Your task to perform on an android device: open chrome and create a bookmark for the current page Image 0: 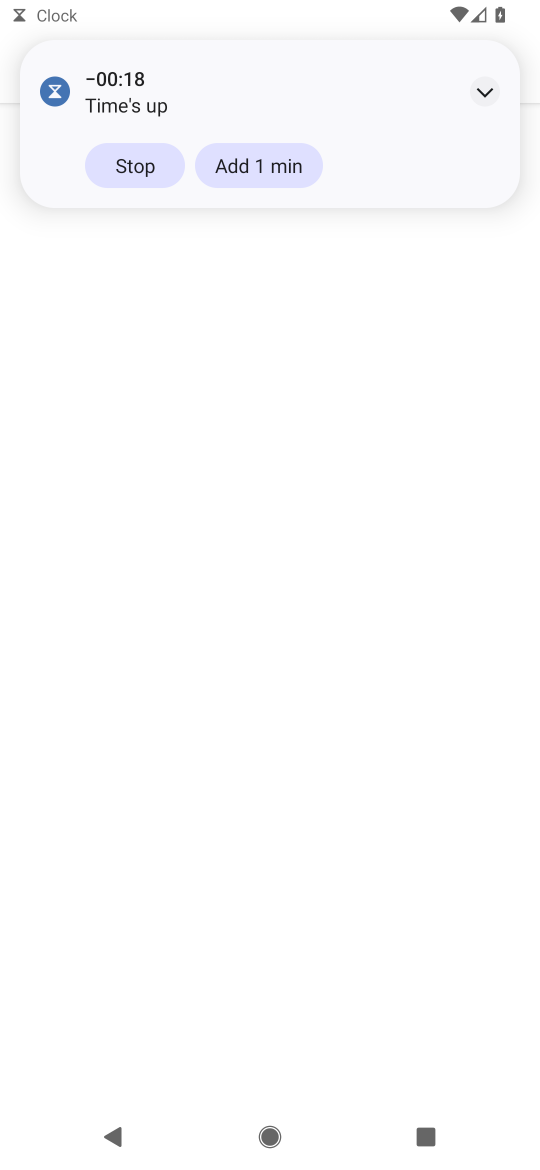
Step 0: press home button
Your task to perform on an android device: open chrome and create a bookmark for the current page Image 1: 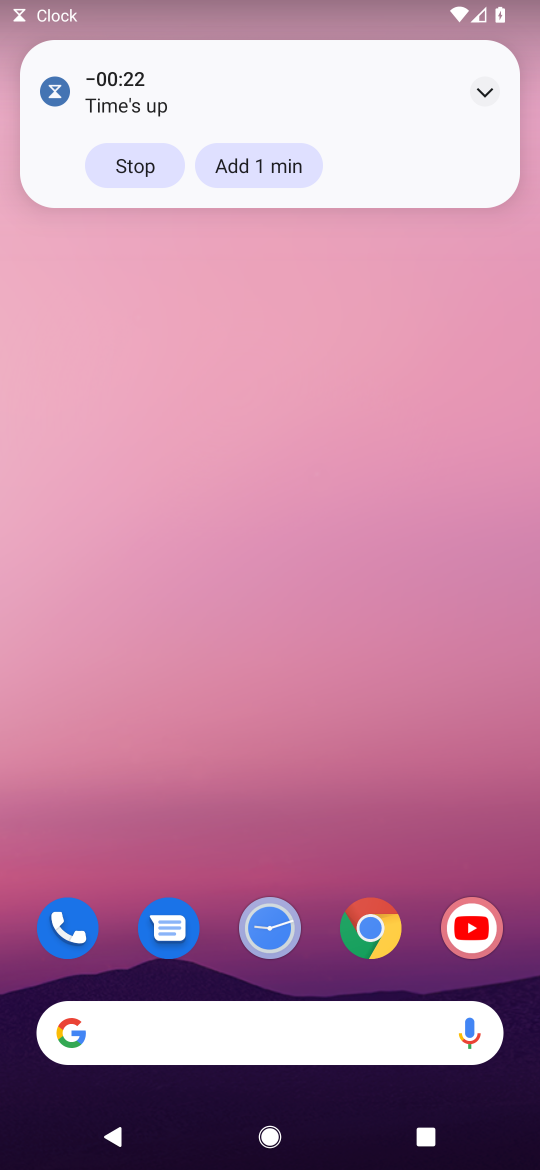
Step 1: click (386, 934)
Your task to perform on an android device: open chrome and create a bookmark for the current page Image 2: 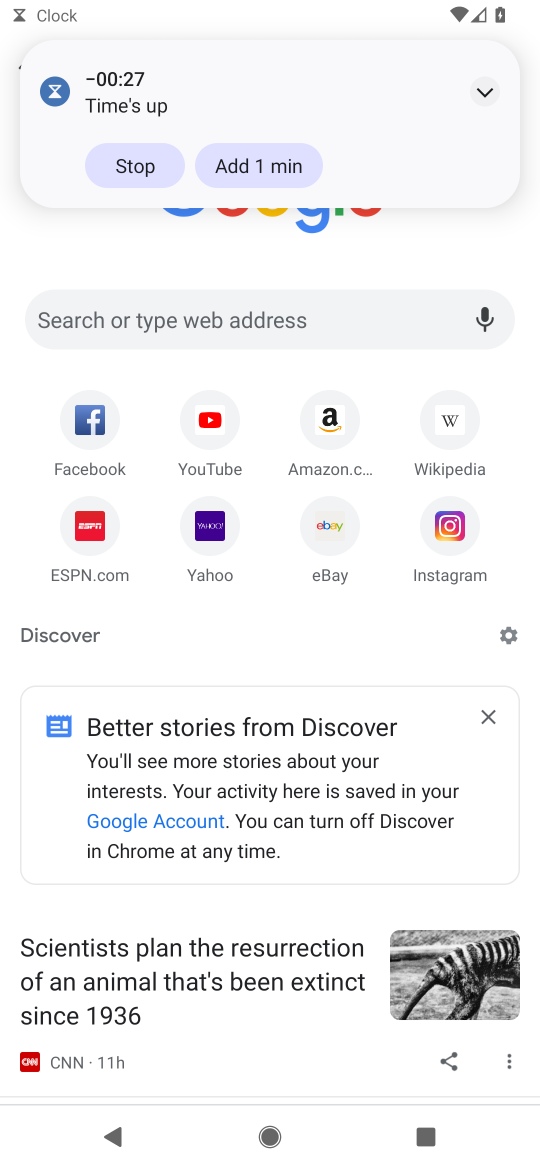
Step 2: click (386, 934)
Your task to perform on an android device: open chrome and create a bookmark for the current page Image 3: 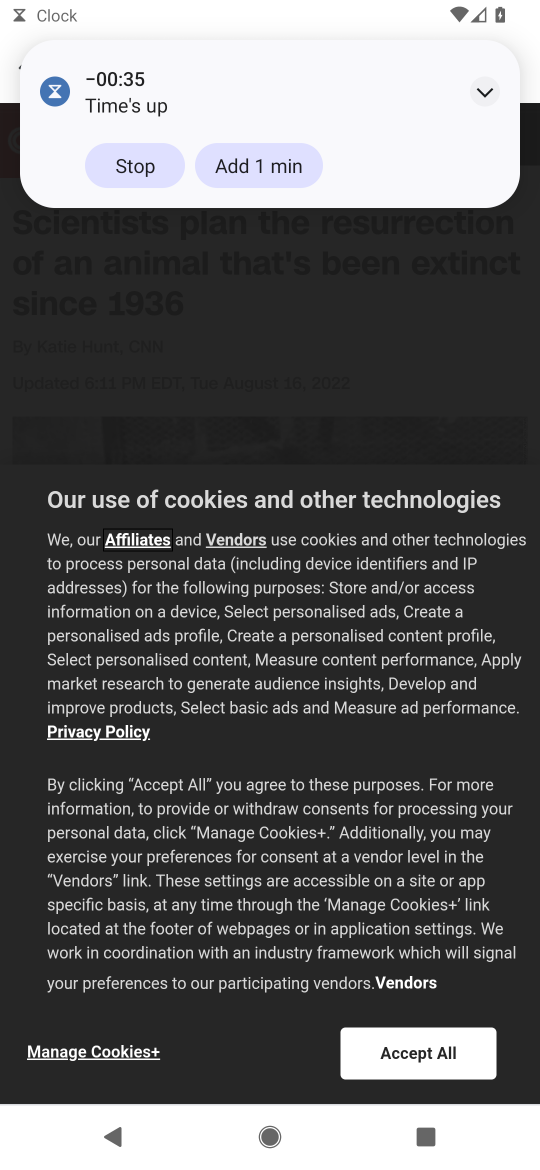
Step 3: click (157, 167)
Your task to perform on an android device: open chrome and create a bookmark for the current page Image 4: 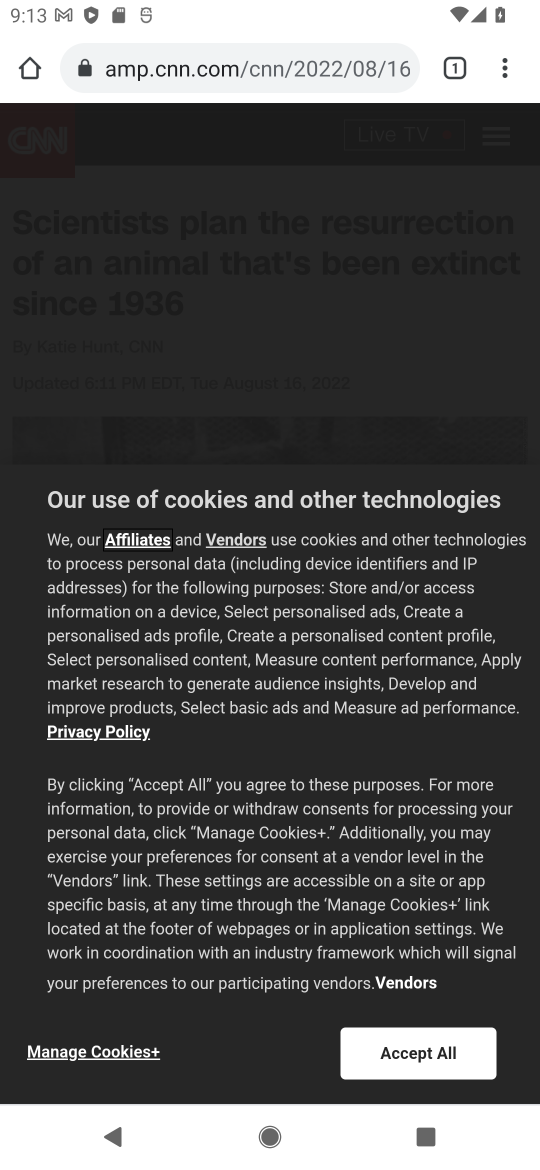
Step 4: click (502, 62)
Your task to perform on an android device: open chrome and create a bookmark for the current page Image 5: 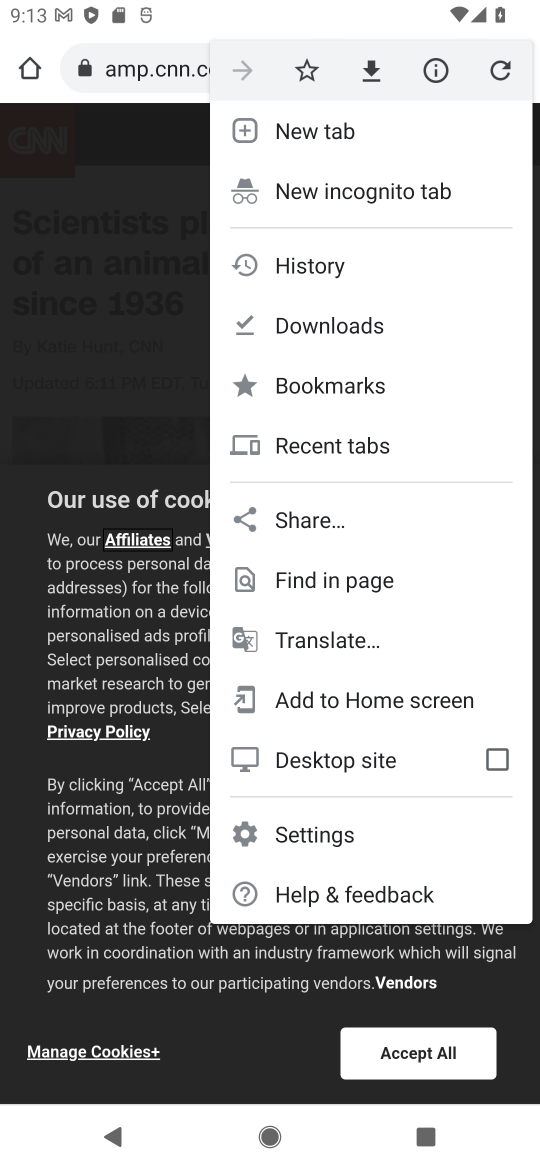
Step 5: click (289, 68)
Your task to perform on an android device: open chrome and create a bookmark for the current page Image 6: 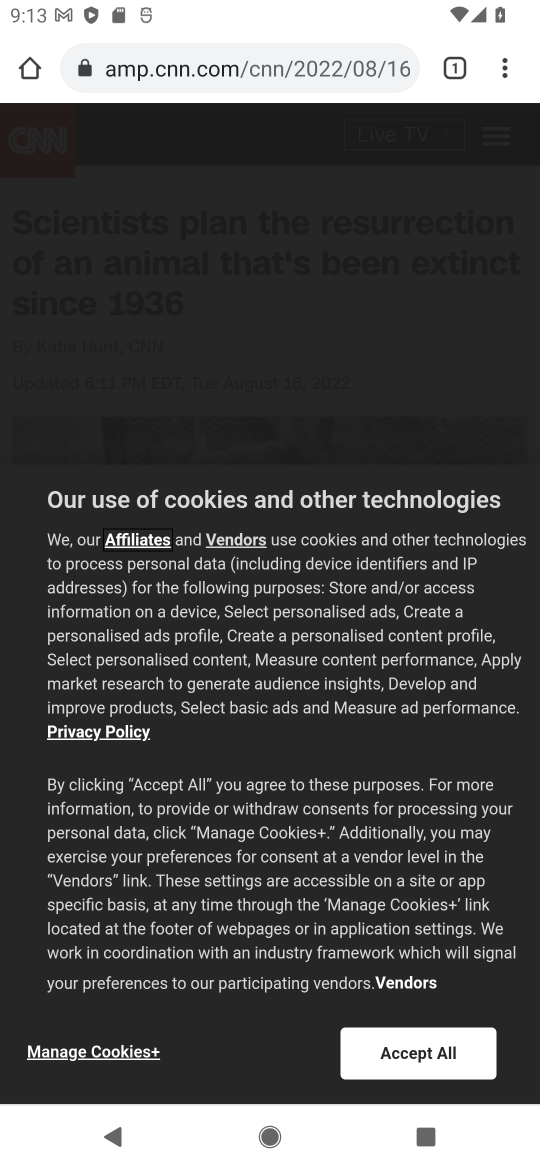
Step 6: task complete